Your task to perform on an android device: add a contact Image 0: 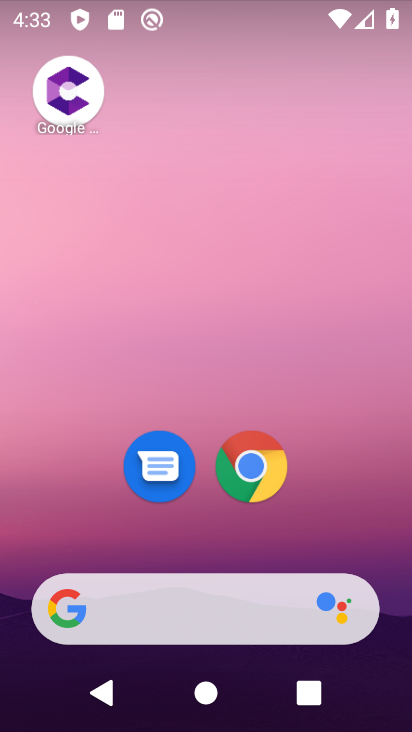
Step 0: drag from (394, 571) to (353, 135)
Your task to perform on an android device: add a contact Image 1: 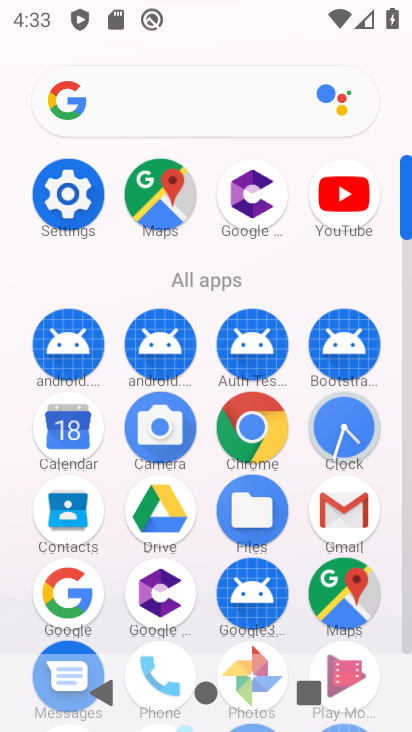
Step 1: click (407, 621)
Your task to perform on an android device: add a contact Image 2: 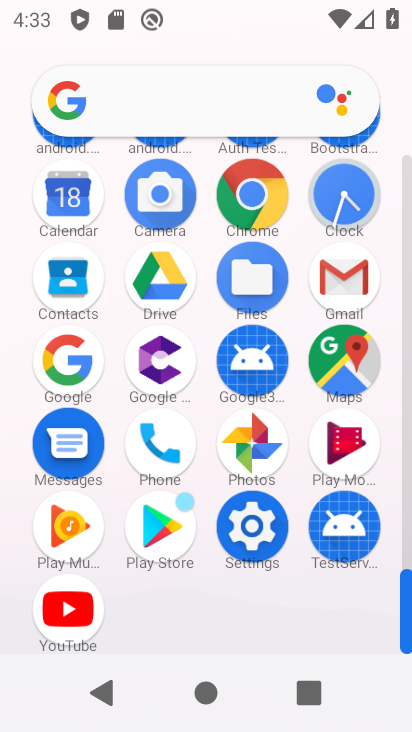
Step 2: click (66, 278)
Your task to perform on an android device: add a contact Image 3: 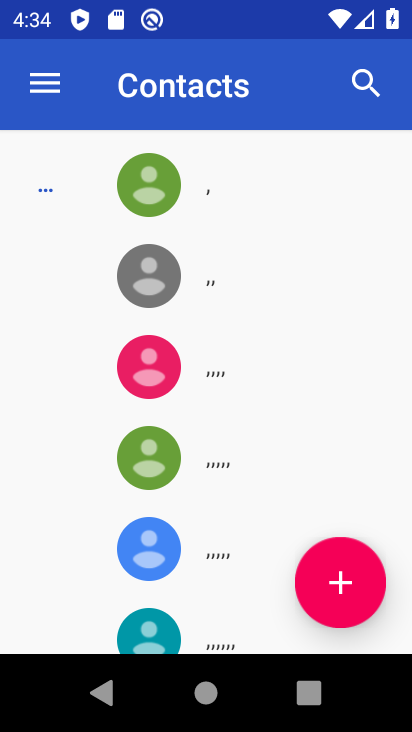
Step 3: click (340, 576)
Your task to perform on an android device: add a contact Image 4: 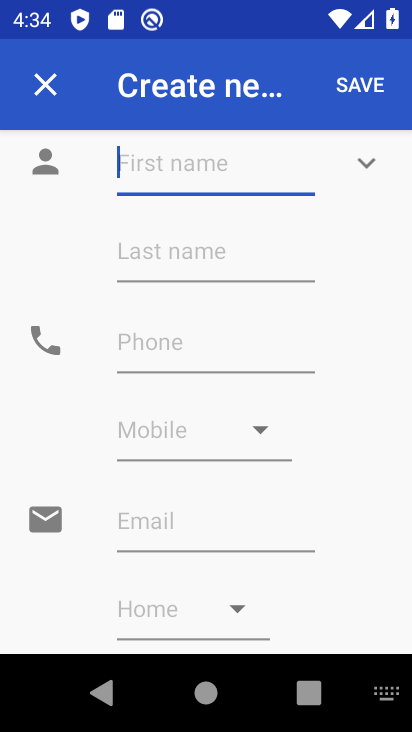
Step 4: type "klhkjdsg"
Your task to perform on an android device: add a contact Image 5: 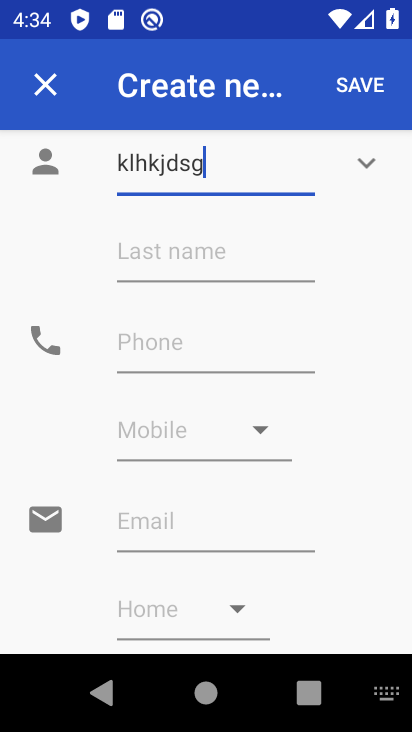
Step 5: click (203, 353)
Your task to perform on an android device: add a contact Image 6: 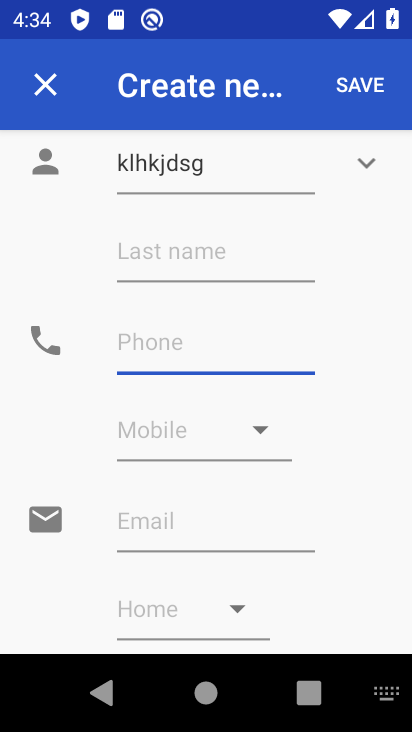
Step 6: type "0978967854"
Your task to perform on an android device: add a contact Image 7: 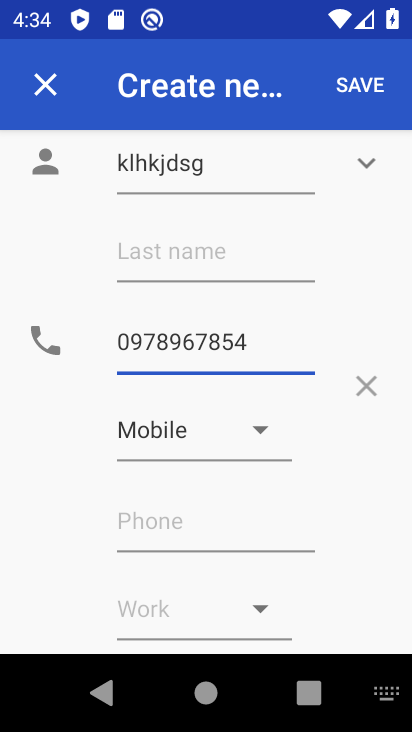
Step 7: click (267, 432)
Your task to perform on an android device: add a contact Image 8: 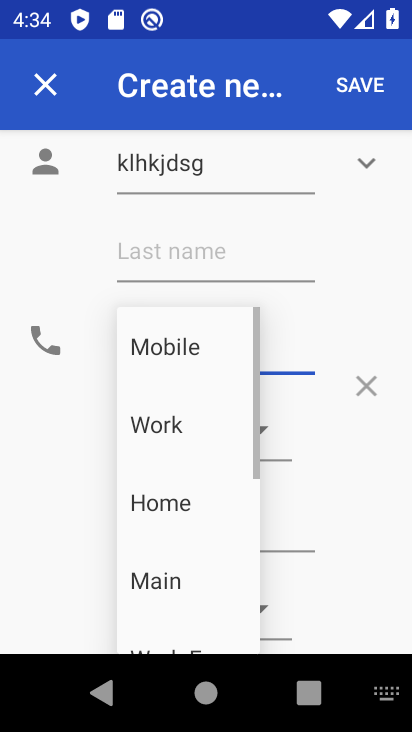
Step 8: click (168, 428)
Your task to perform on an android device: add a contact Image 9: 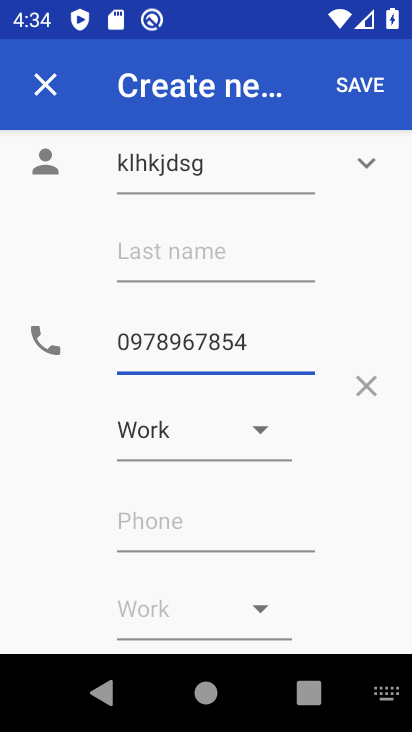
Step 9: click (364, 81)
Your task to perform on an android device: add a contact Image 10: 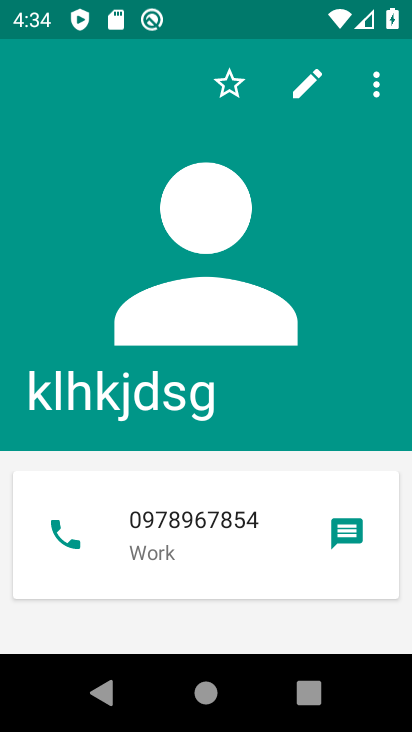
Step 10: task complete